Your task to perform on an android device: Search for Mexican restaurants on Maps Image 0: 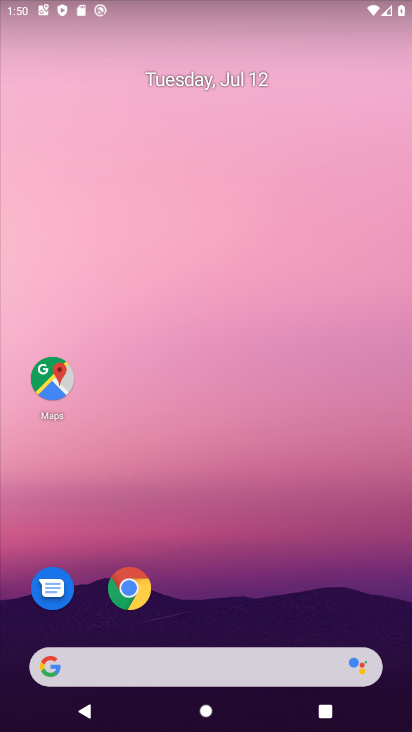
Step 0: drag from (191, 590) to (175, 46)
Your task to perform on an android device: Search for Mexican restaurants on Maps Image 1: 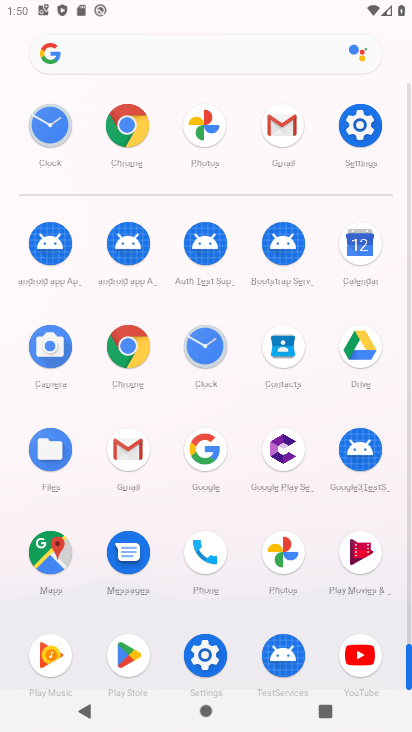
Step 1: drag from (243, 596) to (230, 254)
Your task to perform on an android device: Search for Mexican restaurants on Maps Image 2: 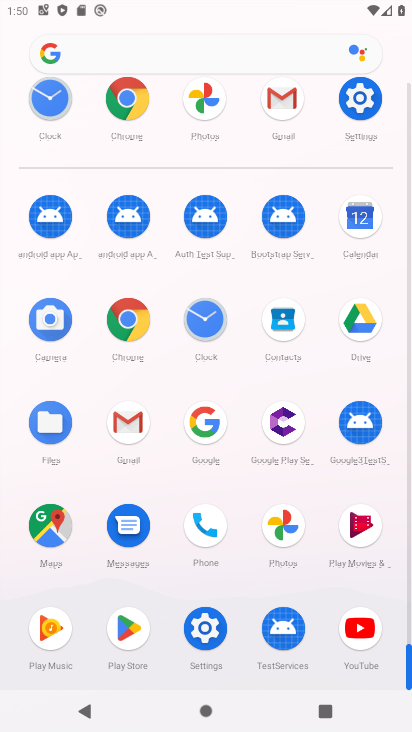
Step 2: drag from (167, 622) to (195, 116)
Your task to perform on an android device: Search for Mexican restaurants on Maps Image 3: 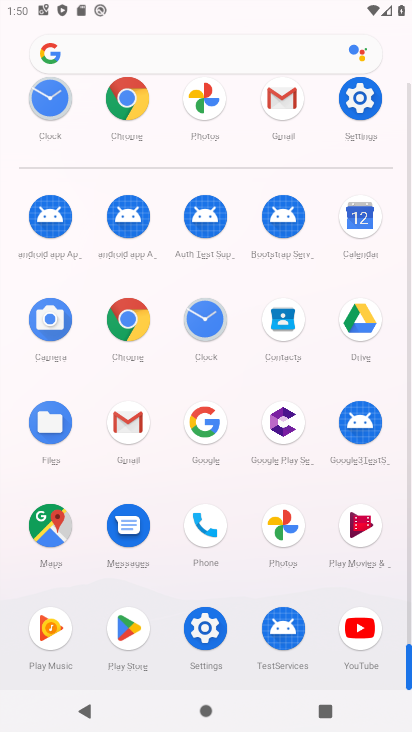
Step 3: click (43, 521)
Your task to perform on an android device: Search for Mexican restaurants on Maps Image 4: 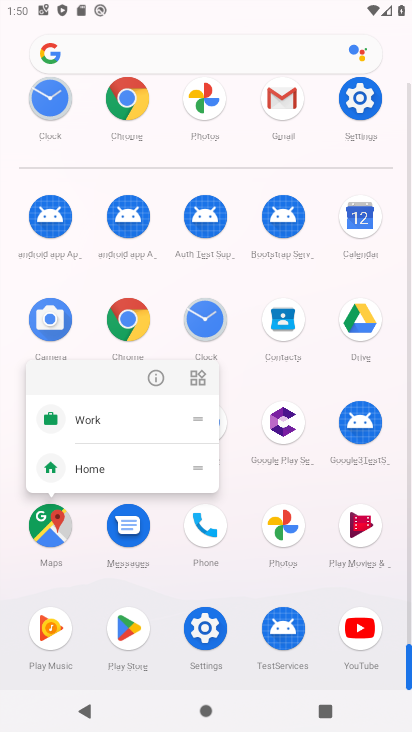
Step 4: click (167, 377)
Your task to perform on an android device: Search for Mexican restaurants on Maps Image 5: 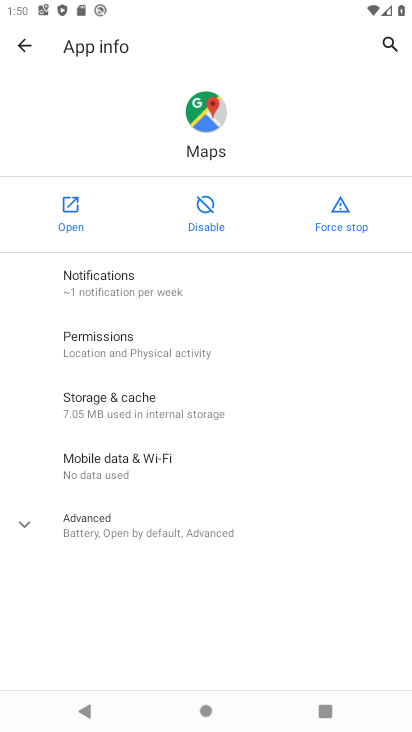
Step 5: click (62, 215)
Your task to perform on an android device: Search for Mexican restaurants on Maps Image 6: 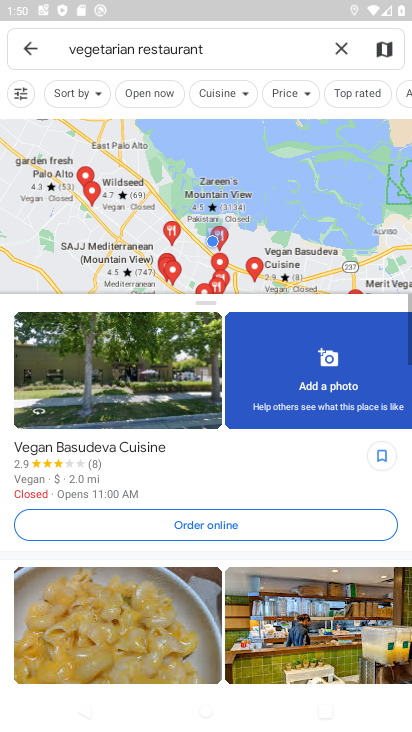
Step 6: click (336, 50)
Your task to perform on an android device: Search for Mexican restaurants on Maps Image 7: 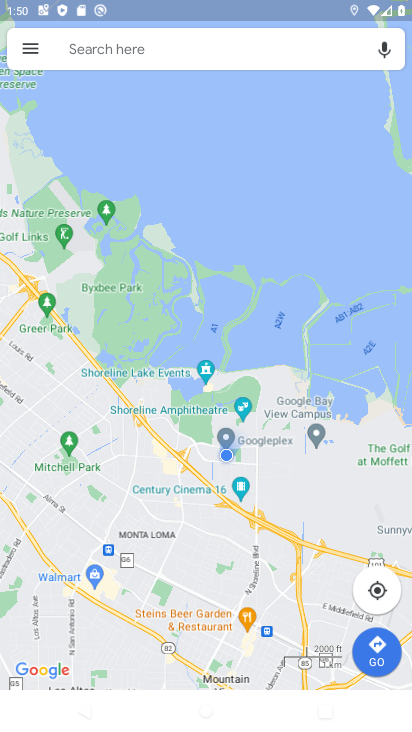
Step 7: click (127, 32)
Your task to perform on an android device: Search for Mexican restaurants on Maps Image 8: 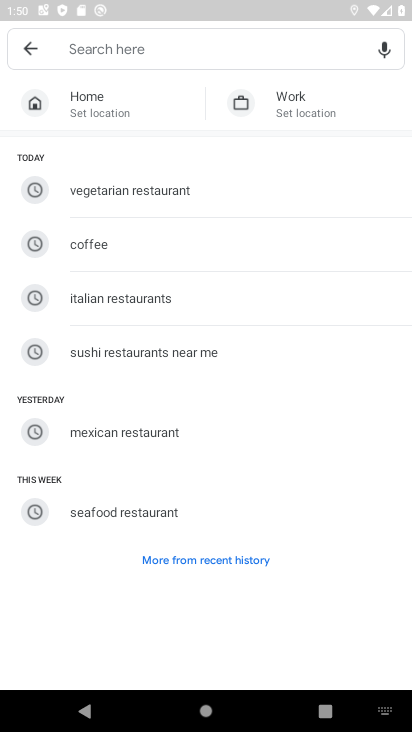
Step 8: click (75, 432)
Your task to perform on an android device: Search for Mexican restaurants on Maps Image 9: 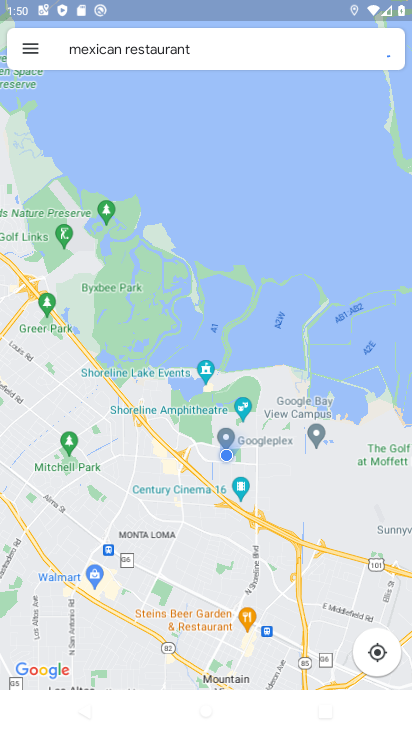
Step 9: task complete